Your task to perform on an android device: delete the emails in spam in the gmail app Image 0: 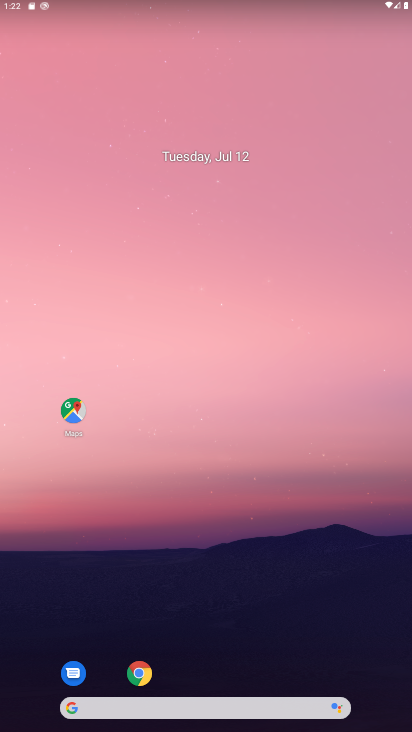
Step 0: drag from (265, 640) to (287, 22)
Your task to perform on an android device: delete the emails in spam in the gmail app Image 1: 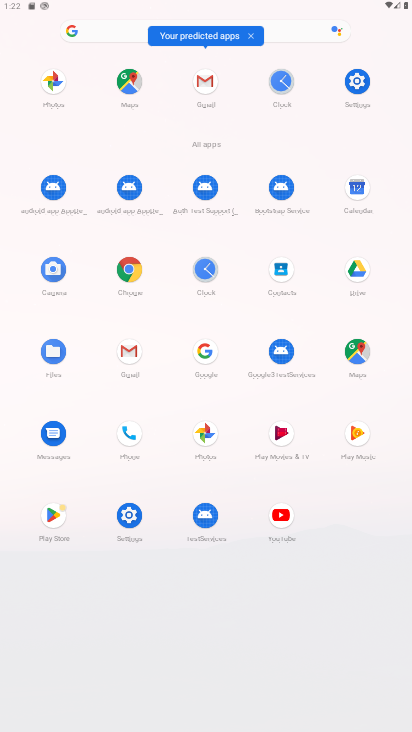
Step 1: click (212, 85)
Your task to perform on an android device: delete the emails in spam in the gmail app Image 2: 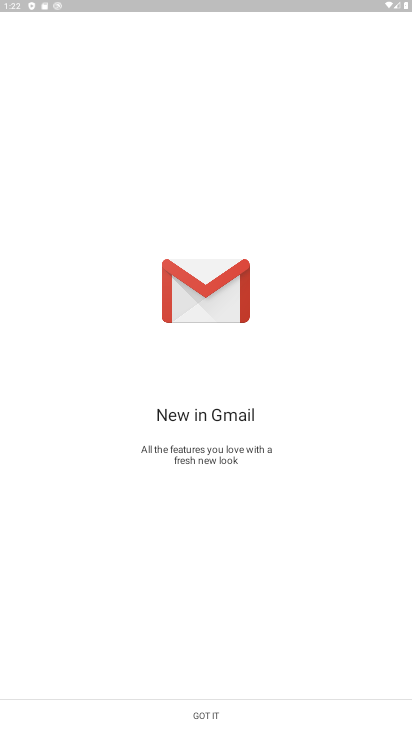
Step 2: click (213, 720)
Your task to perform on an android device: delete the emails in spam in the gmail app Image 3: 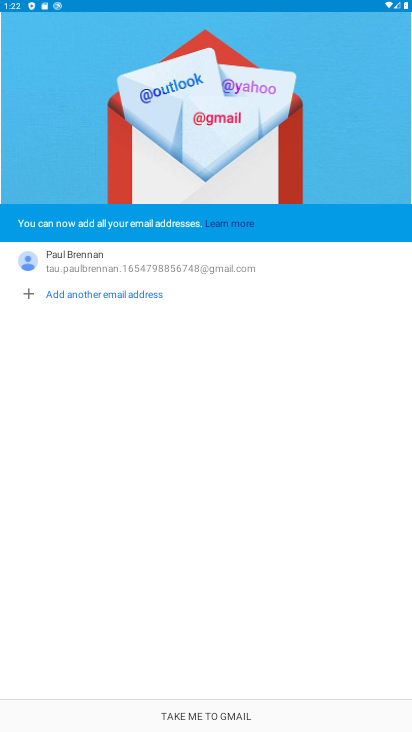
Step 3: click (196, 711)
Your task to perform on an android device: delete the emails in spam in the gmail app Image 4: 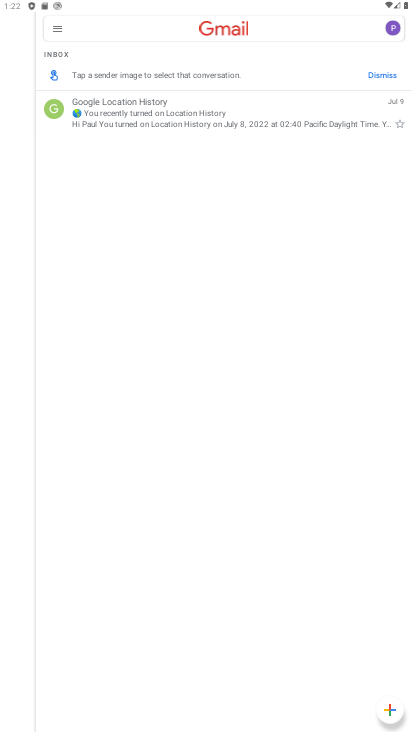
Step 4: click (58, 29)
Your task to perform on an android device: delete the emails in spam in the gmail app Image 5: 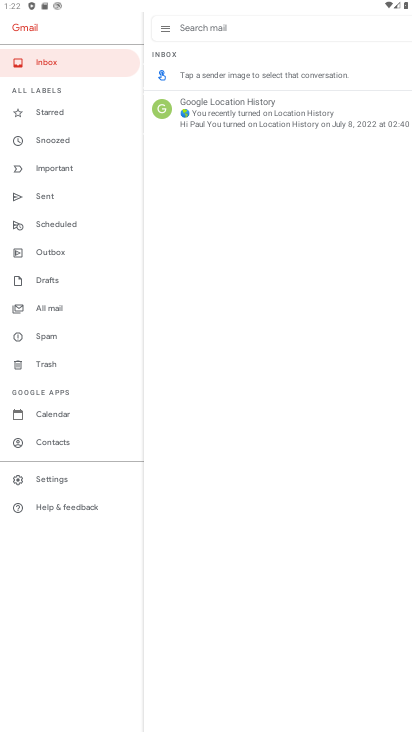
Step 5: click (49, 340)
Your task to perform on an android device: delete the emails in spam in the gmail app Image 6: 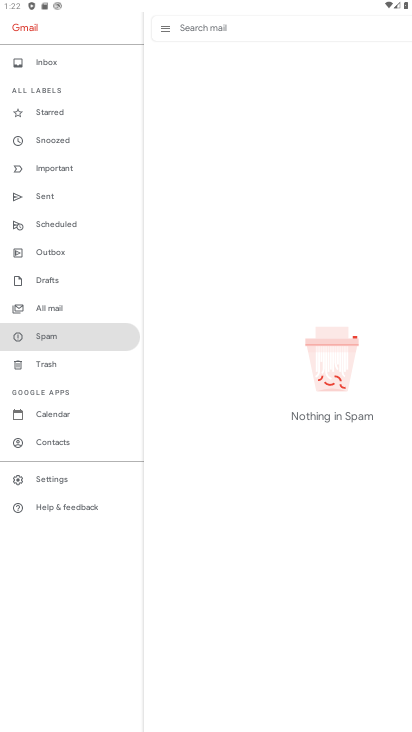
Step 6: task complete